Your task to perform on an android device: What's on my calendar today? Image 0: 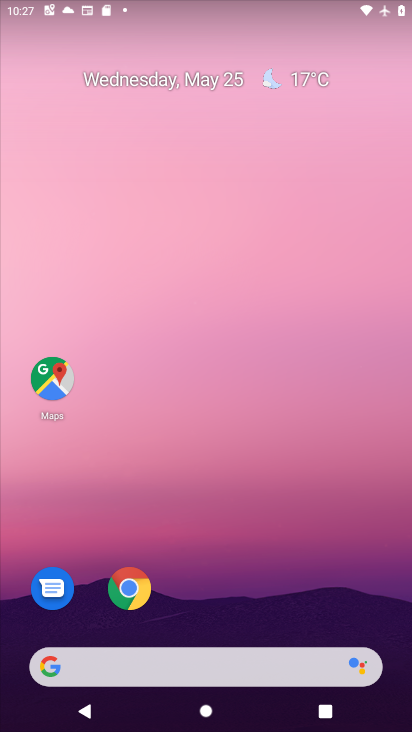
Step 0: drag from (358, 601) to (362, 222)
Your task to perform on an android device: What's on my calendar today? Image 1: 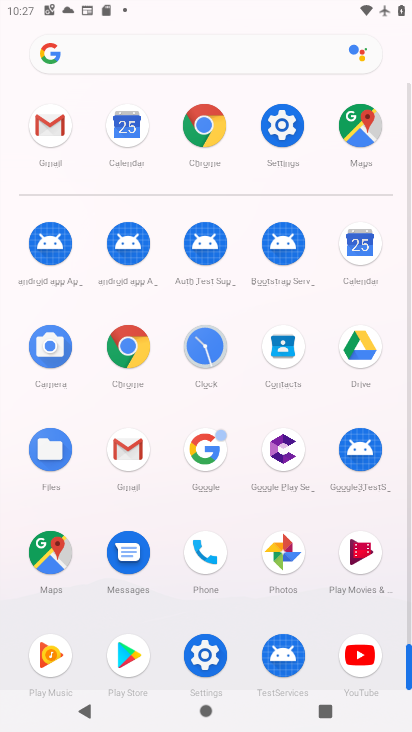
Step 1: click (363, 267)
Your task to perform on an android device: What's on my calendar today? Image 2: 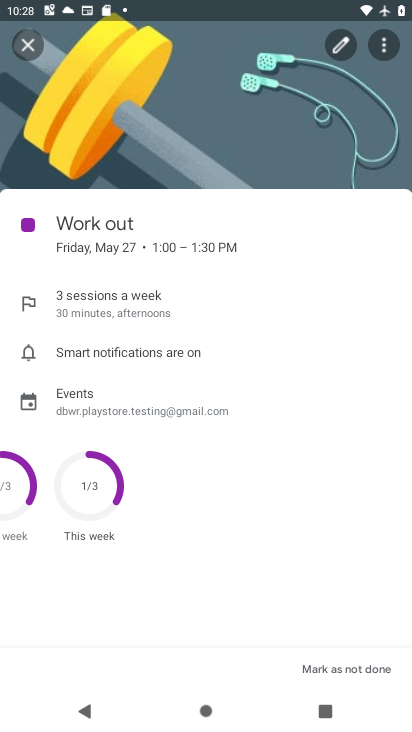
Step 2: click (31, 43)
Your task to perform on an android device: What's on my calendar today? Image 3: 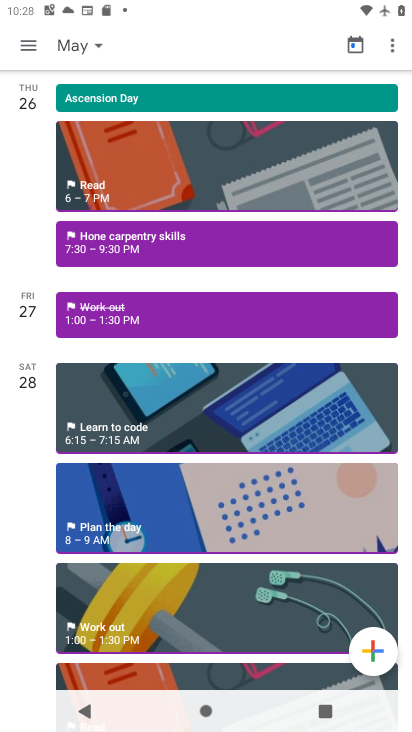
Step 3: click (204, 150)
Your task to perform on an android device: What's on my calendar today? Image 4: 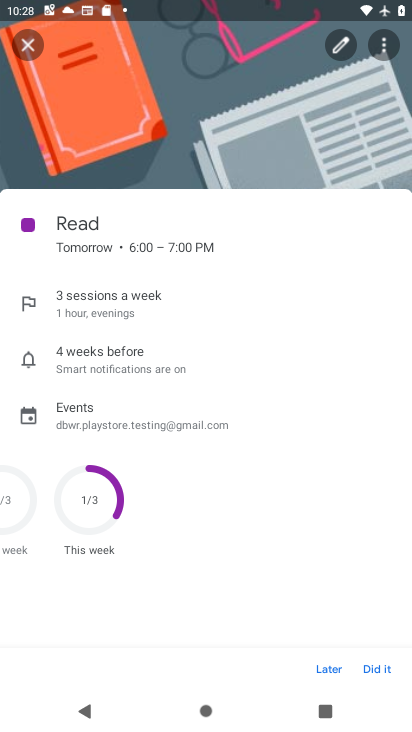
Step 4: task complete